Your task to perform on an android device: Go to privacy settings Image 0: 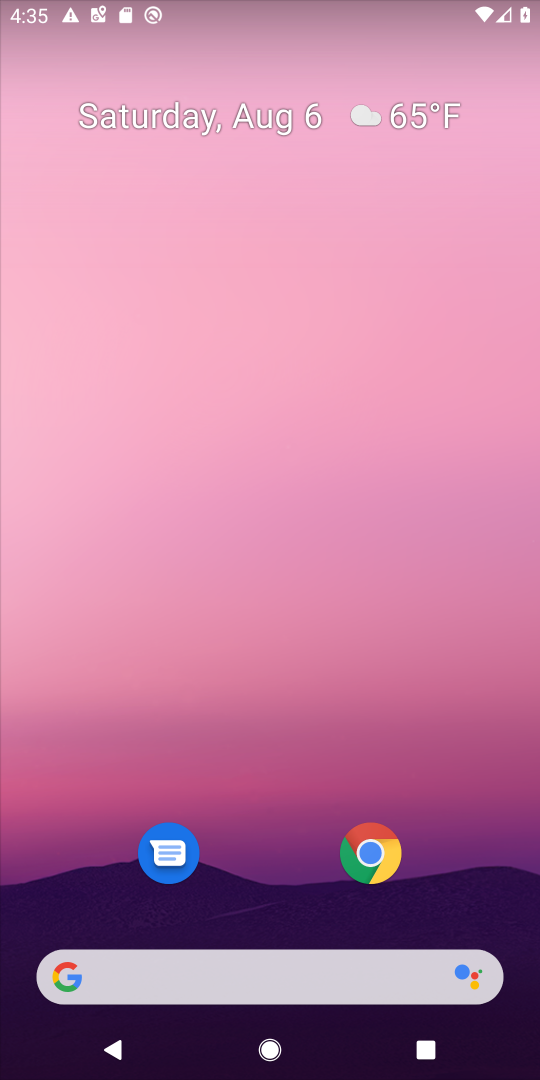
Step 0: drag from (227, 915) to (361, 145)
Your task to perform on an android device: Go to privacy settings Image 1: 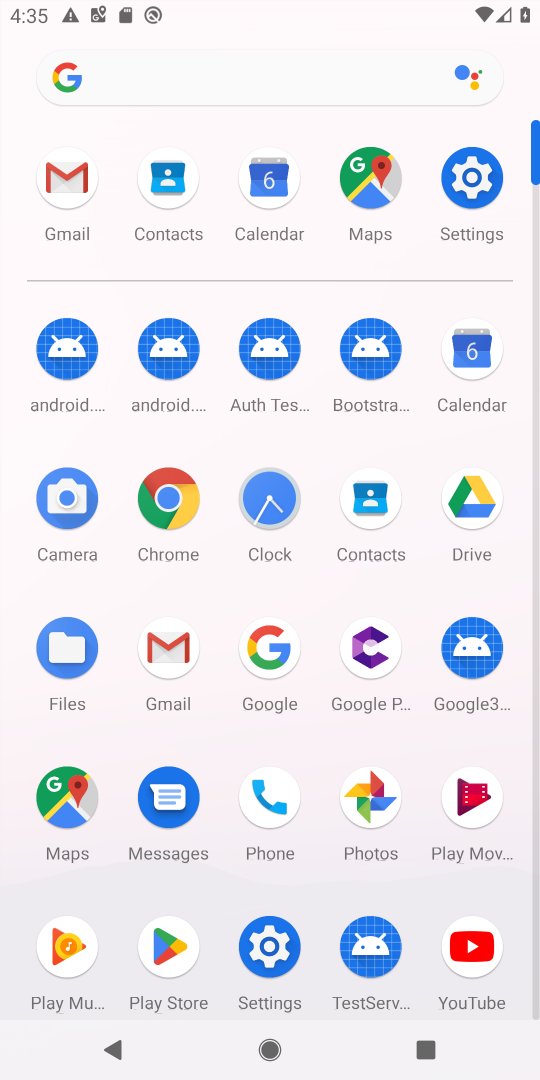
Step 1: click (473, 173)
Your task to perform on an android device: Go to privacy settings Image 2: 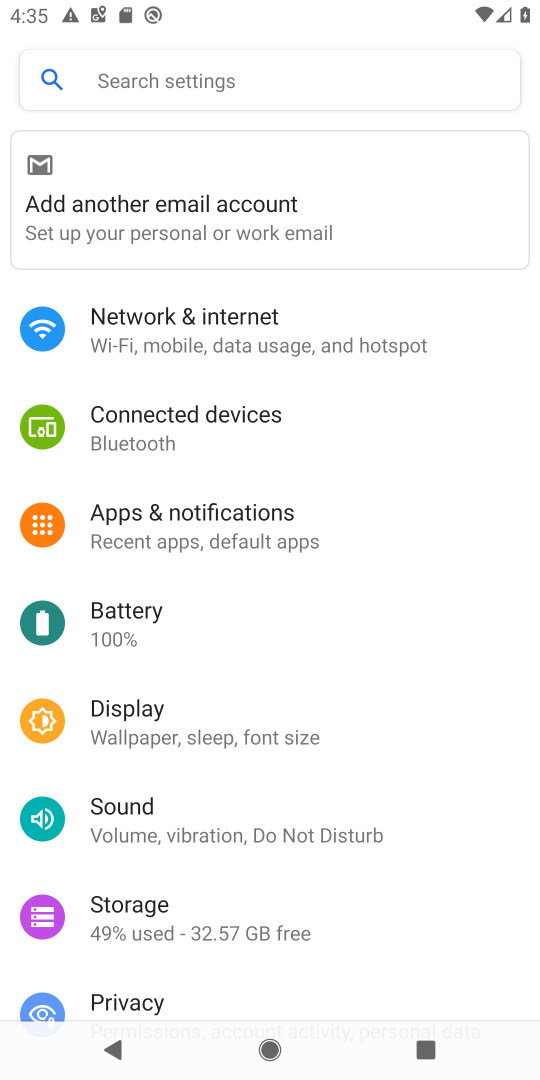
Step 2: click (137, 1004)
Your task to perform on an android device: Go to privacy settings Image 3: 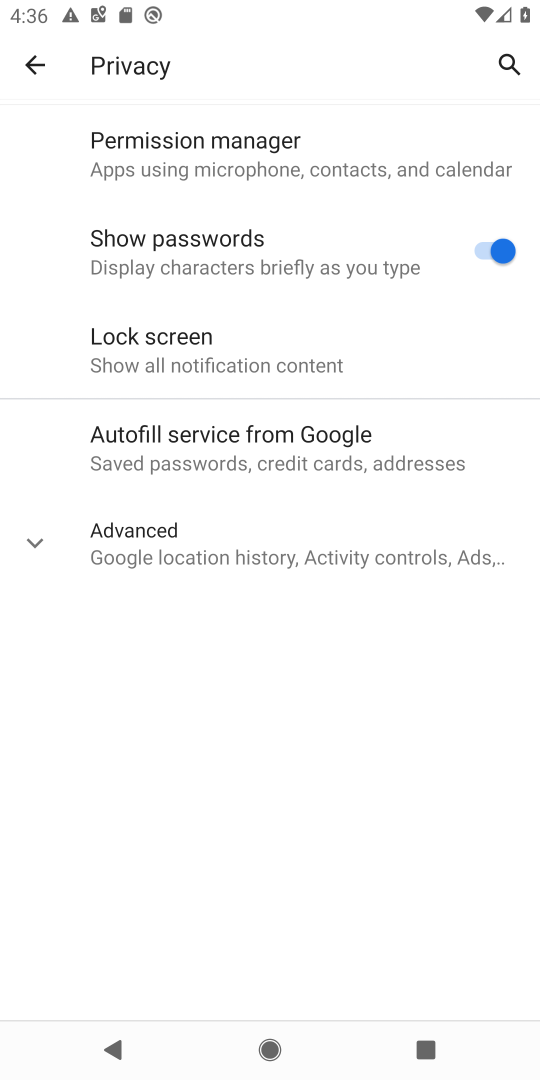
Step 3: task complete